Your task to perform on an android device: turn off improve location accuracy Image 0: 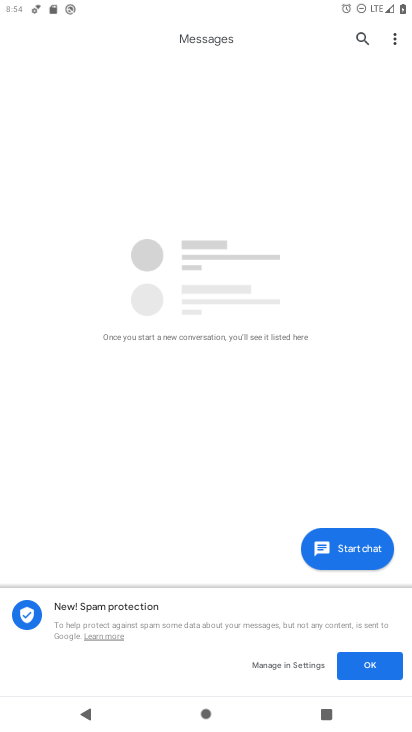
Step 0: press home button
Your task to perform on an android device: turn off improve location accuracy Image 1: 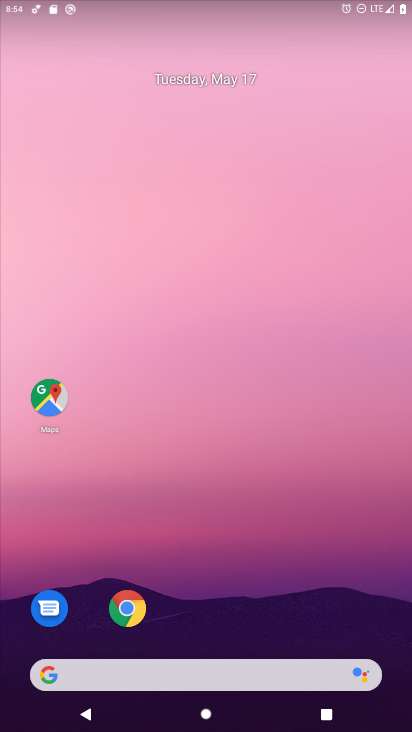
Step 1: drag from (213, 638) to (299, 86)
Your task to perform on an android device: turn off improve location accuracy Image 2: 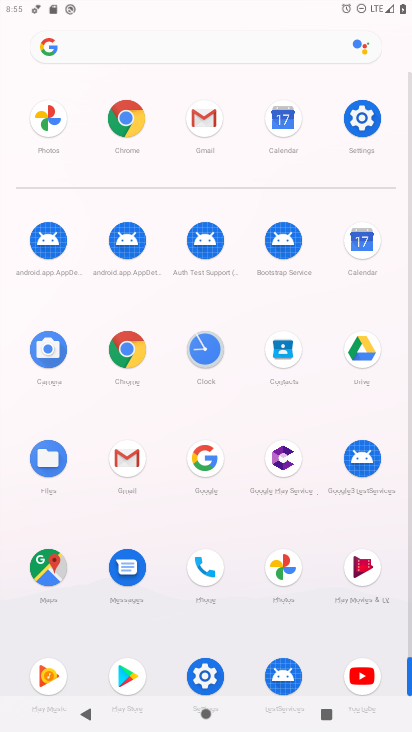
Step 2: click (208, 670)
Your task to perform on an android device: turn off improve location accuracy Image 3: 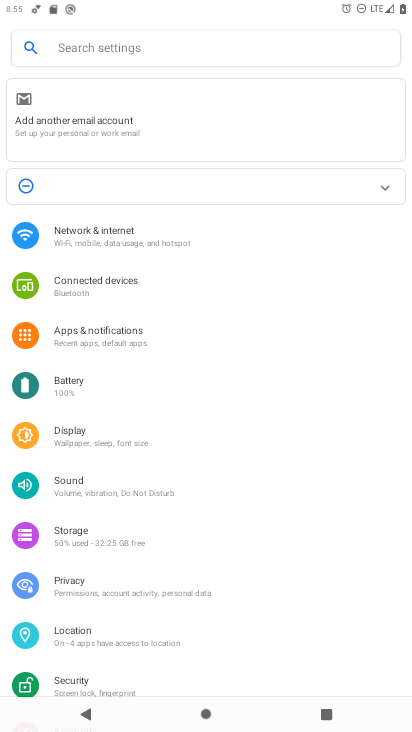
Step 3: click (108, 642)
Your task to perform on an android device: turn off improve location accuracy Image 4: 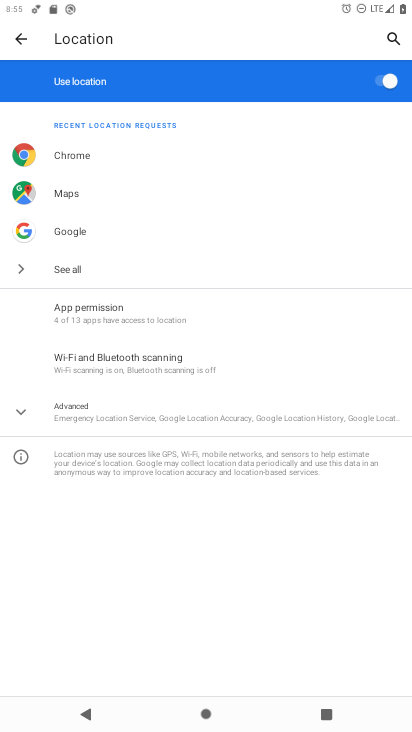
Step 4: click (115, 408)
Your task to perform on an android device: turn off improve location accuracy Image 5: 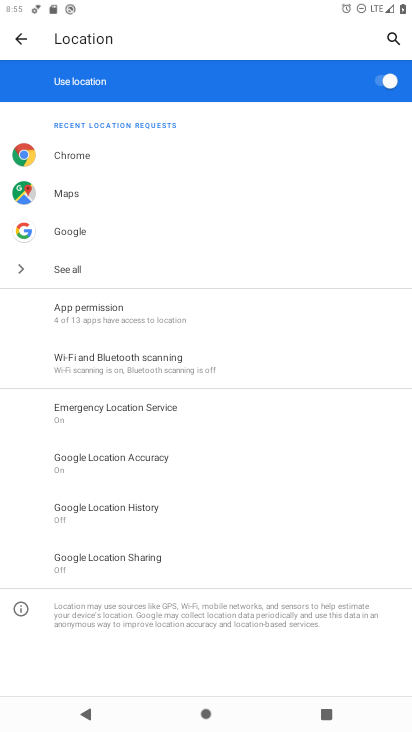
Step 5: click (127, 459)
Your task to perform on an android device: turn off improve location accuracy Image 6: 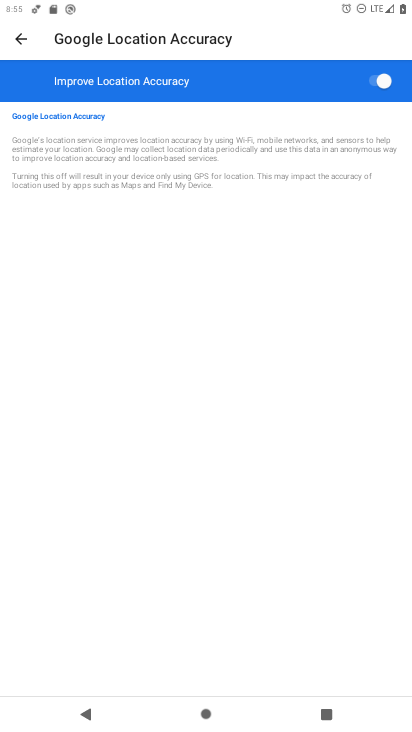
Step 6: click (372, 85)
Your task to perform on an android device: turn off improve location accuracy Image 7: 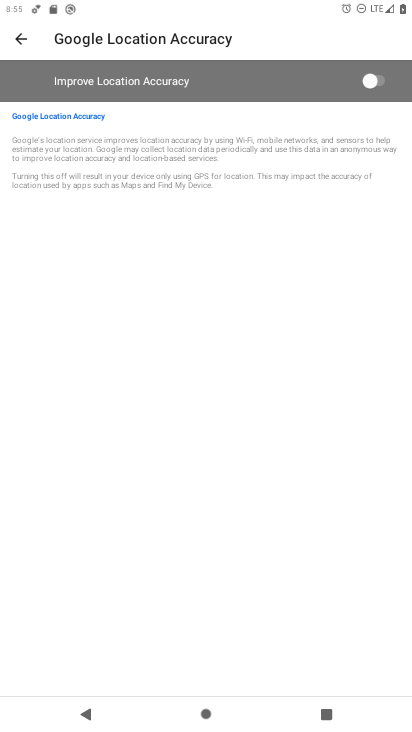
Step 7: task complete